Your task to perform on an android device: Turn off the flashlight Image 0: 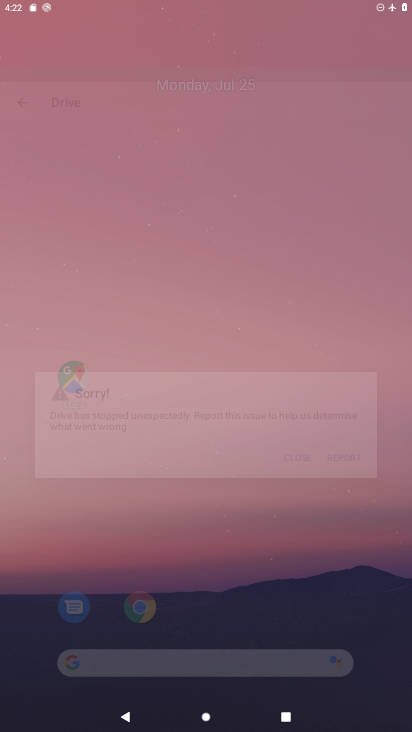
Step 0: press home button
Your task to perform on an android device: Turn off the flashlight Image 1: 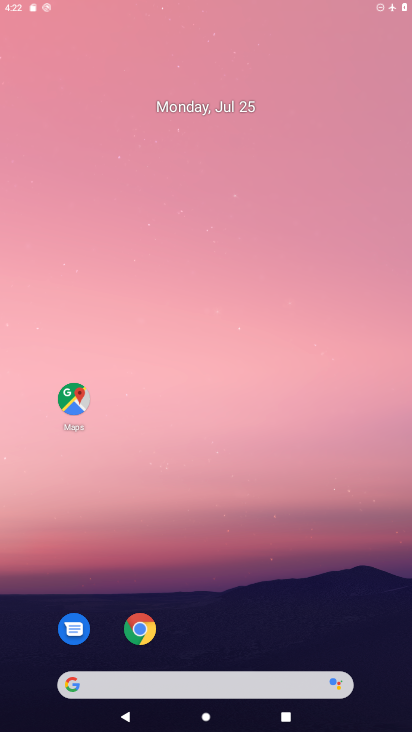
Step 1: task complete